Your task to perform on an android device: turn notification dots off Image 0: 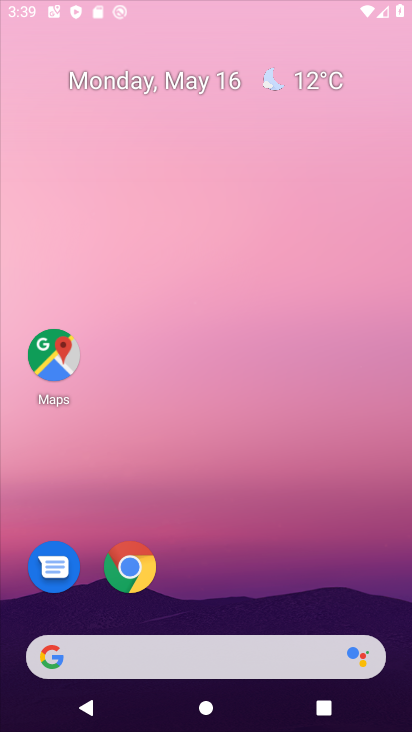
Step 0: drag from (262, 280) to (229, 11)
Your task to perform on an android device: turn notification dots off Image 1: 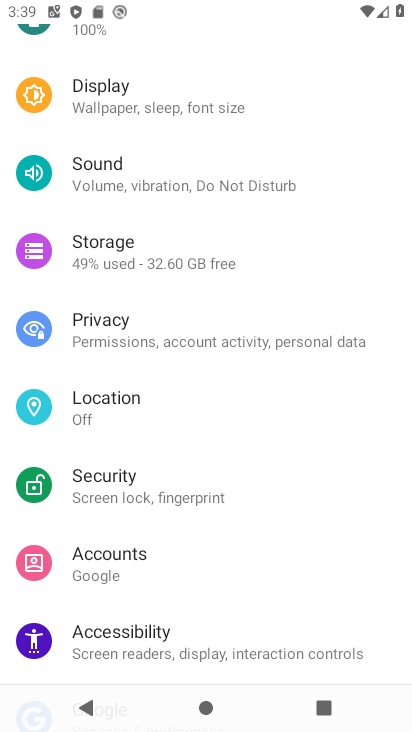
Step 1: drag from (227, 158) to (204, 582)
Your task to perform on an android device: turn notification dots off Image 2: 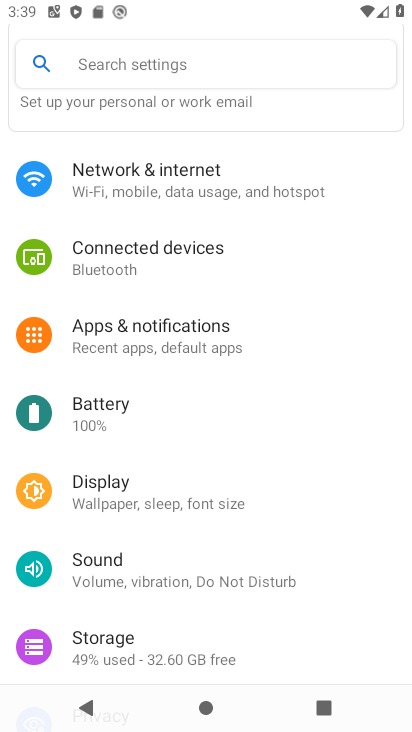
Step 2: click (191, 337)
Your task to perform on an android device: turn notification dots off Image 3: 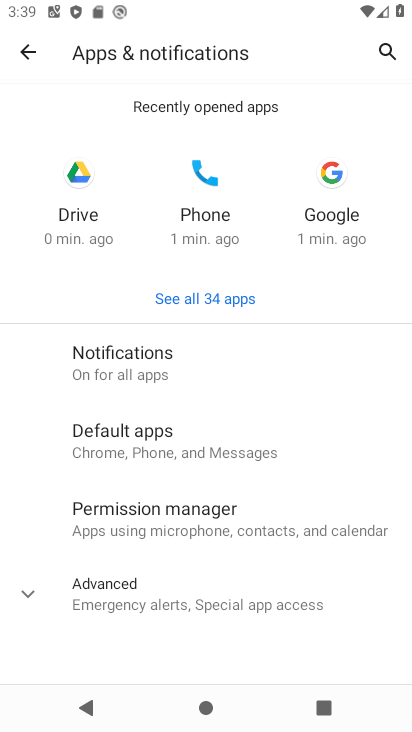
Step 3: click (36, 592)
Your task to perform on an android device: turn notification dots off Image 4: 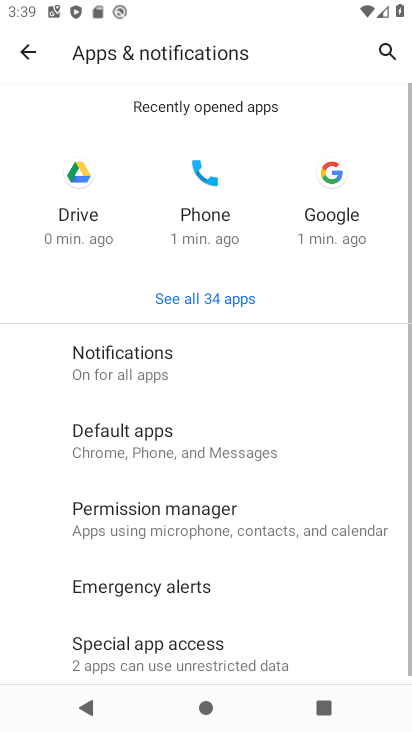
Step 4: click (163, 361)
Your task to perform on an android device: turn notification dots off Image 5: 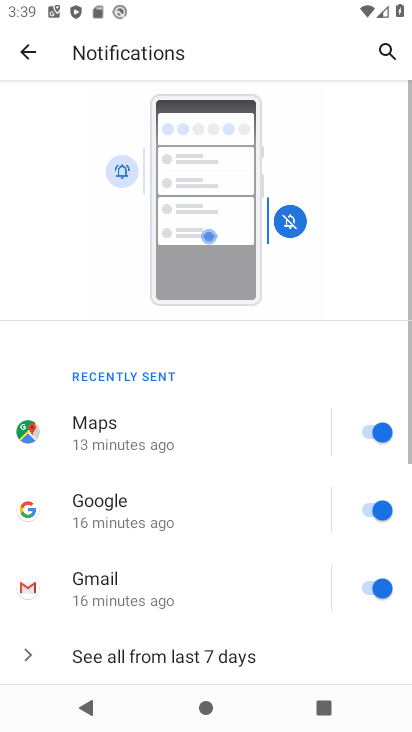
Step 5: drag from (198, 564) to (221, 129)
Your task to perform on an android device: turn notification dots off Image 6: 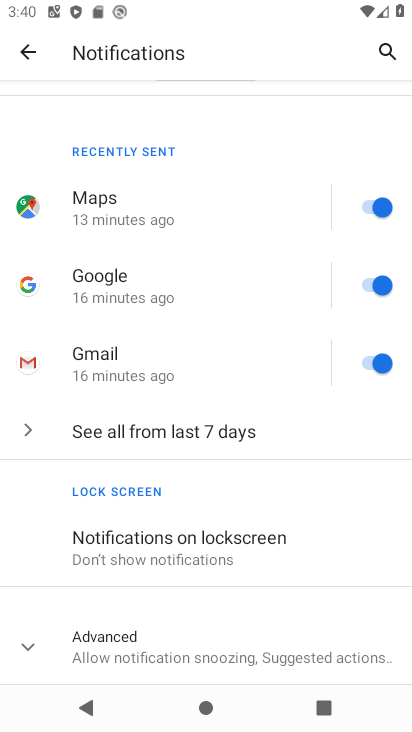
Step 6: click (173, 637)
Your task to perform on an android device: turn notification dots off Image 7: 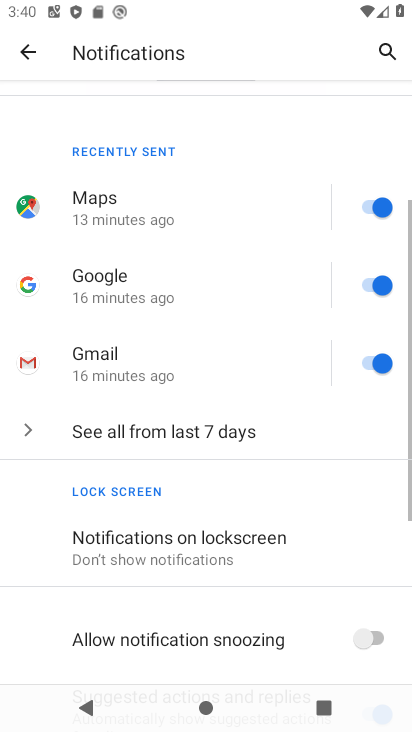
Step 7: drag from (185, 637) to (197, 199)
Your task to perform on an android device: turn notification dots off Image 8: 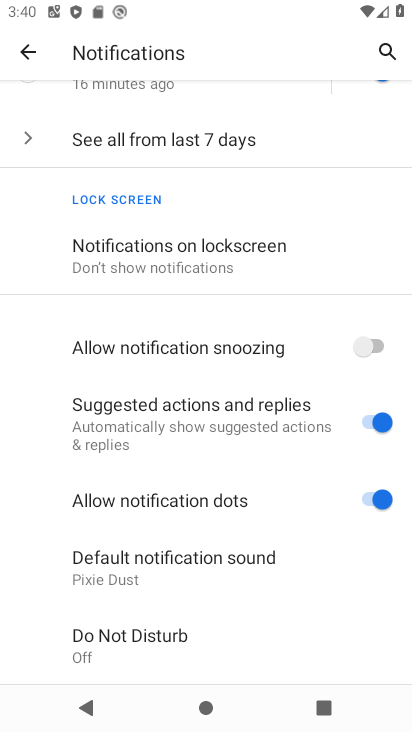
Step 8: click (373, 502)
Your task to perform on an android device: turn notification dots off Image 9: 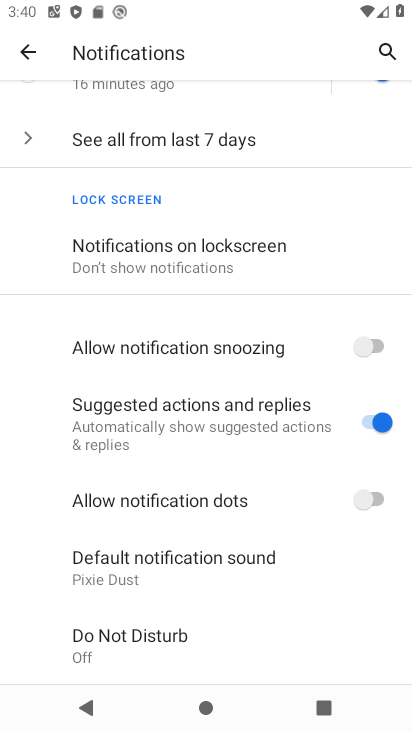
Step 9: task complete